Your task to perform on an android device: open a new tab in the chrome app Image 0: 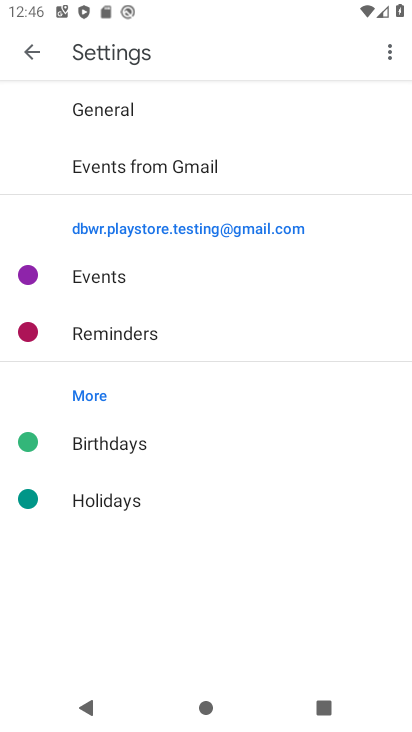
Step 0: press home button
Your task to perform on an android device: open a new tab in the chrome app Image 1: 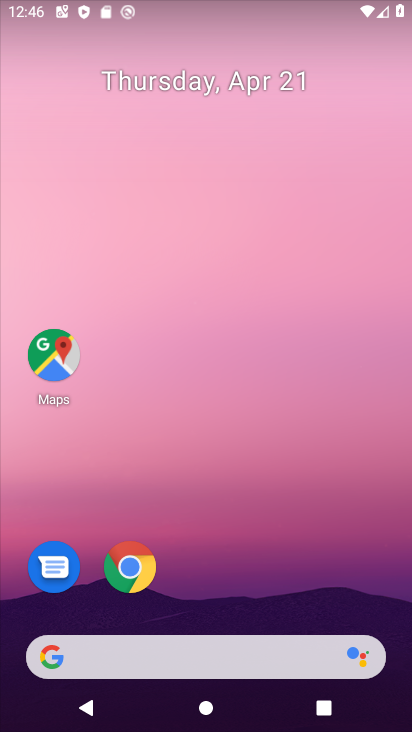
Step 1: click (119, 557)
Your task to perform on an android device: open a new tab in the chrome app Image 2: 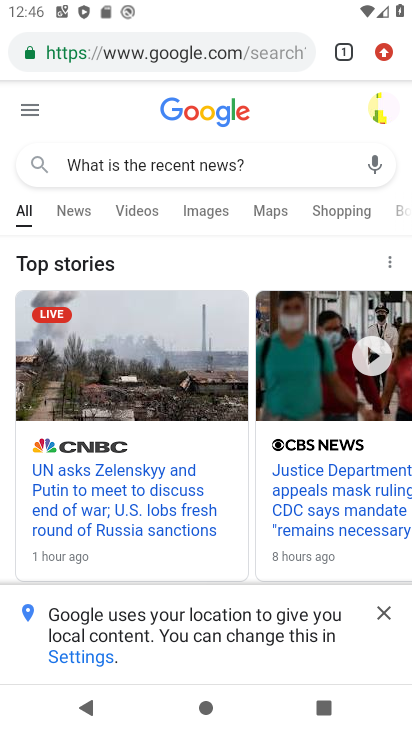
Step 2: click (376, 54)
Your task to perform on an android device: open a new tab in the chrome app Image 3: 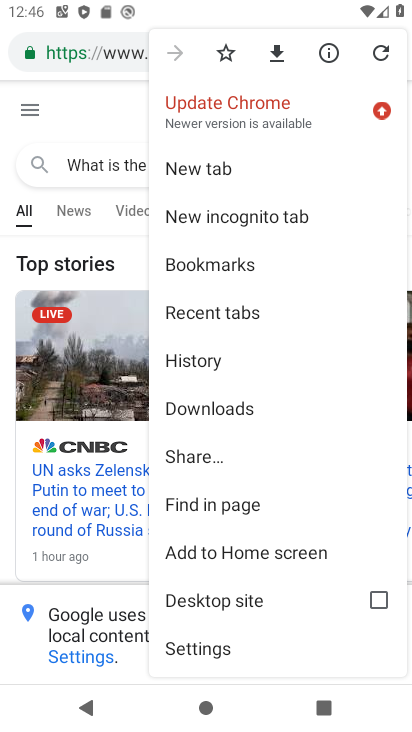
Step 3: click (240, 166)
Your task to perform on an android device: open a new tab in the chrome app Image 4: 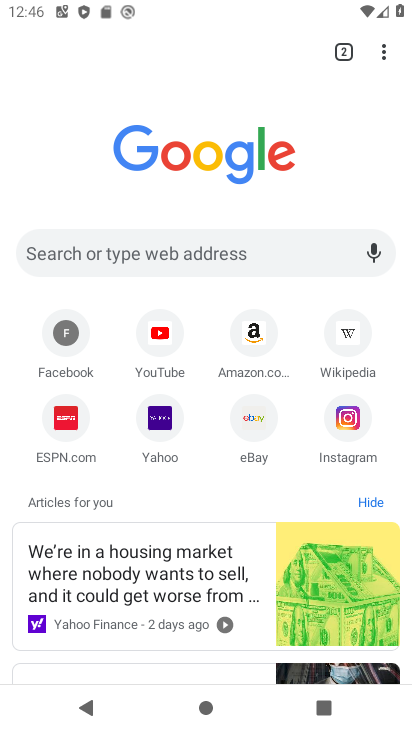
Step 4: task complete